Your task to perform on an android device: Find coffee shops on Maps Image 0: 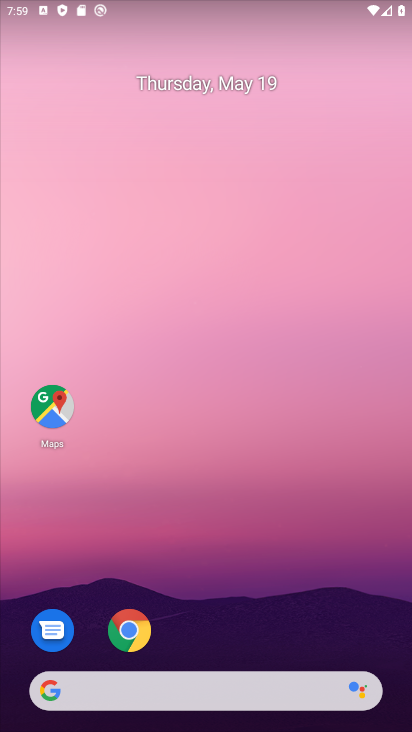
Step 0: click (54, 405)
Your task to perform on an android device: Find coffee shops on Maps Image 1: 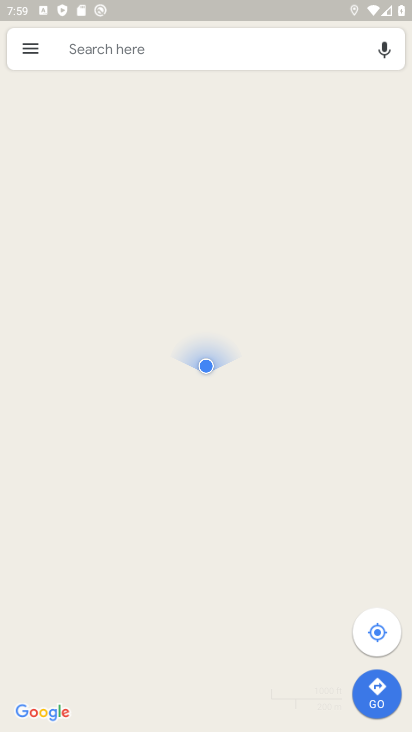
Step 1: click (131, 54)
Your task to perform on an android device: Find coffee shops on Maps Image 2: 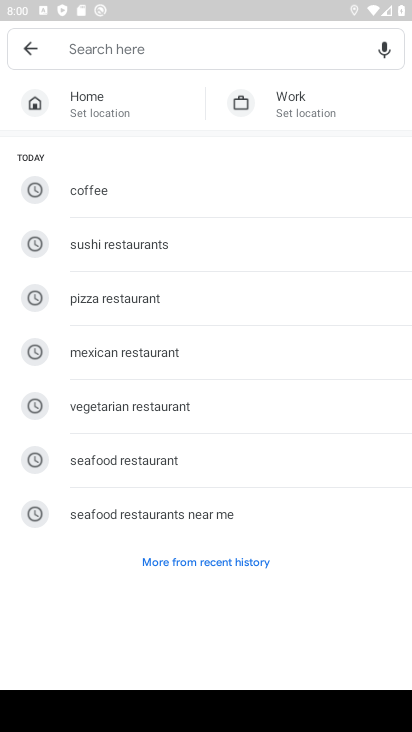
Step 2: type "coffee shop"
Your task to perform on an android device: Find coffee shops on Maps Image 3: 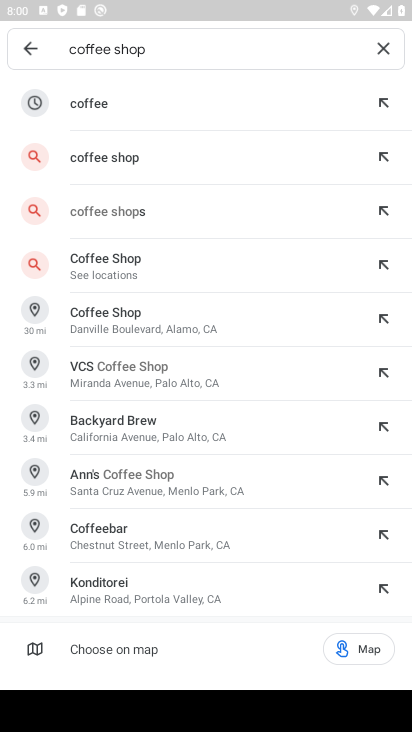
Step 3: click (108, 141)
Your task to perform on an android device: Find coffee shops on Maps Image 4: 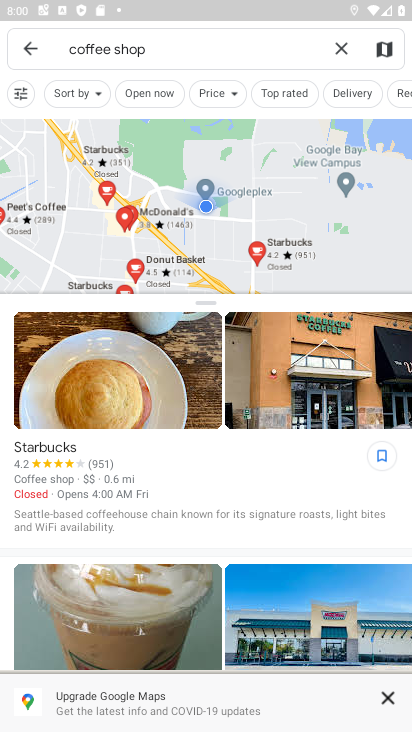
Step 4: task complete